Your task to perform on an android device: allow cookies in the chrome app Image 0: 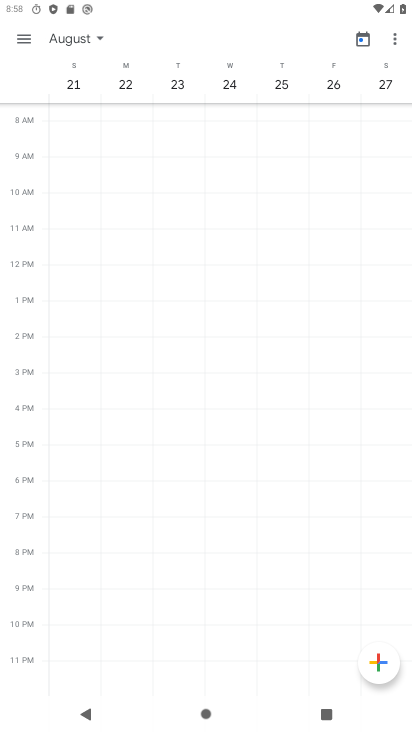
Step 0: press home button
Your task to perform on an android device: allow cookies in the chrome app Image 1: 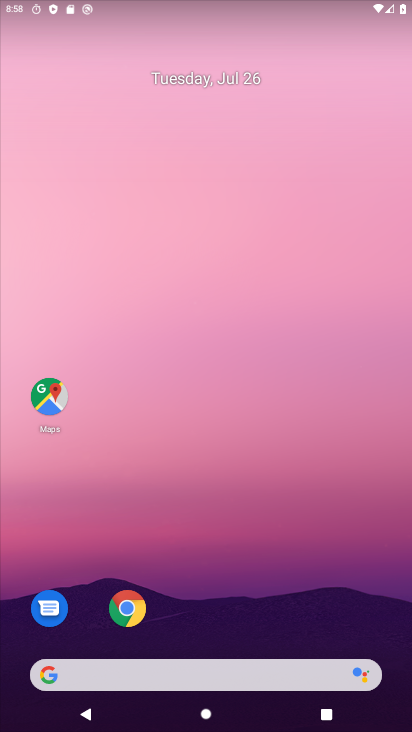
Step 1: click (132, 614)
Your task to perform on an android device: allow cookies in the chrome app Image 2: 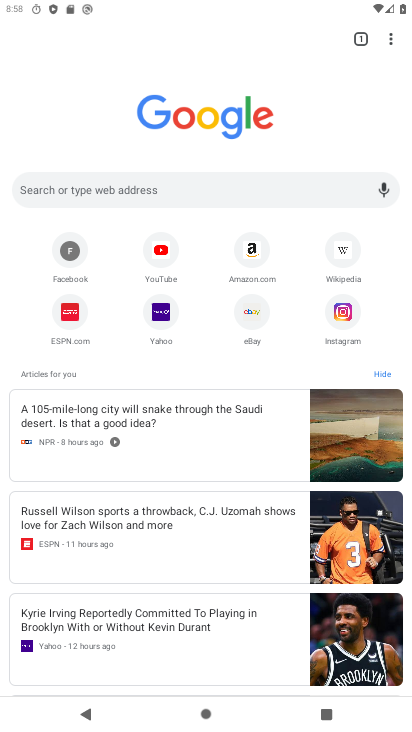
Step 2: click (393, 39)
Your task to perform on an android device: allow cookies in the chrome app Image 3: 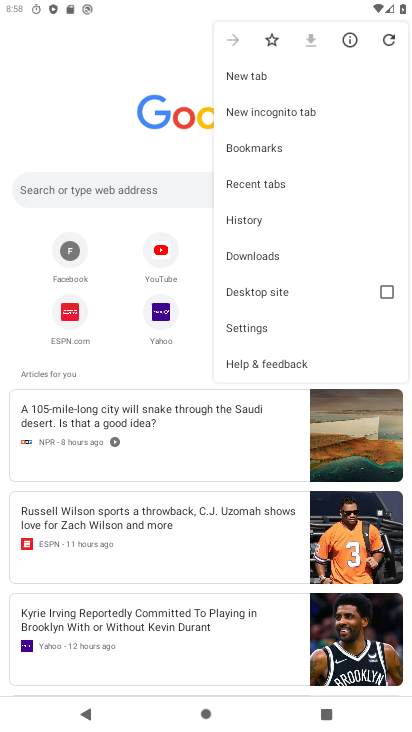
Step 3: click (241, 322)
Your task to perform on an android device: allow cookies in the chrome app Image 4: 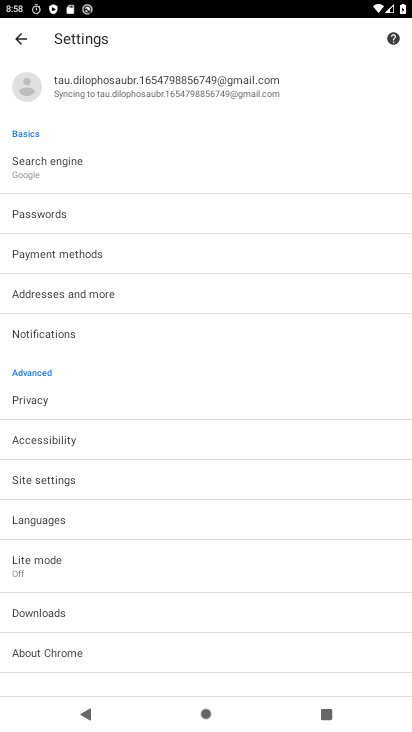
Step 4: click (55, 481)
Your task to perform on an android device: allow cookies in the chrome app Image 5: 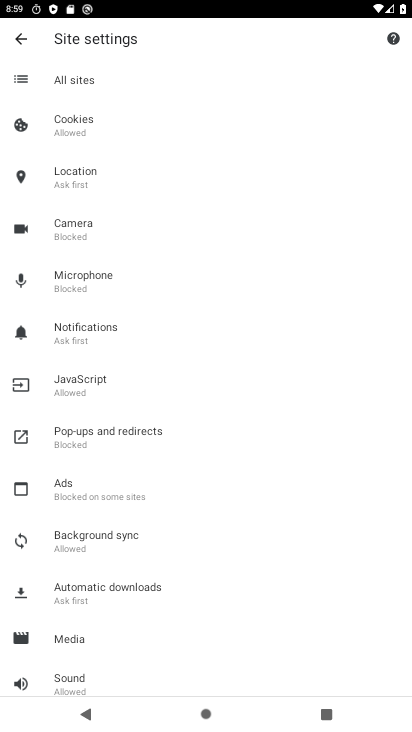
Step 5: click (178, 121)
Your task to perform on an android device: allow cookies in the chrome app Image 6: 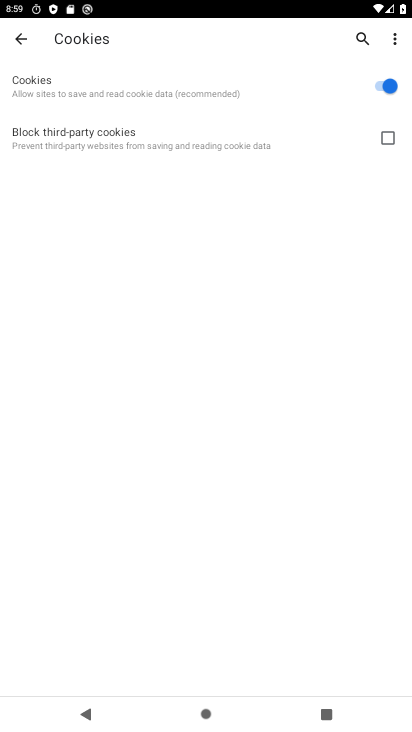
Step 6: task complete